Your task to perform on an android device: empty trash in google photos Image 0: 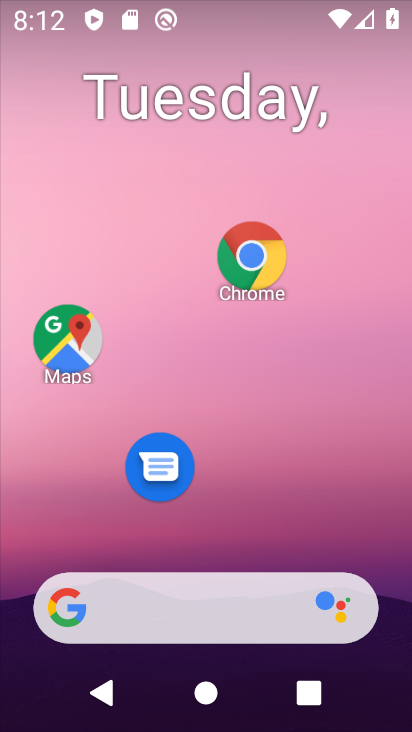
Step 0: drag from (246, 503) to (206, 145)
Your task to perform on an android device: empty trash in google photos Image 1: 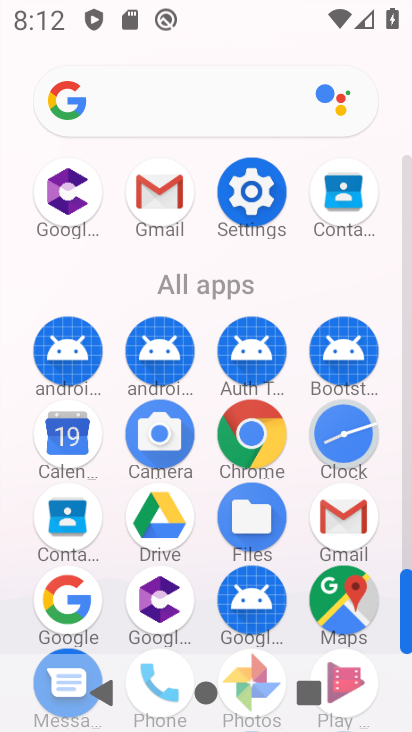
Step 1: drag from (294, 248) to (286, 68)
Your task to perform on an android device: empty trash in google photos Image 2: 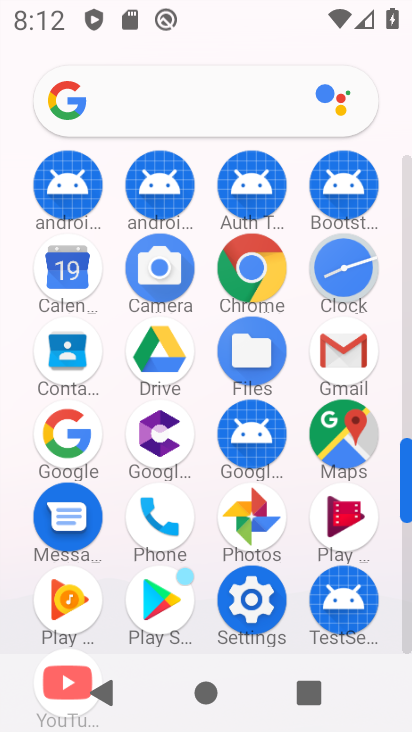
Step 2: click (248, 515)
Your task to perform on an android device: empty trash in google photos Image 3: 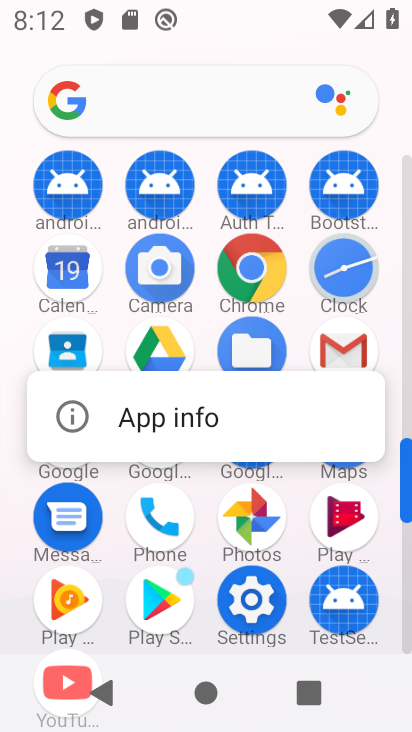
Step 3: click (260, 523)
Your task to perform on an android device: empty trash in google photos Image 4: 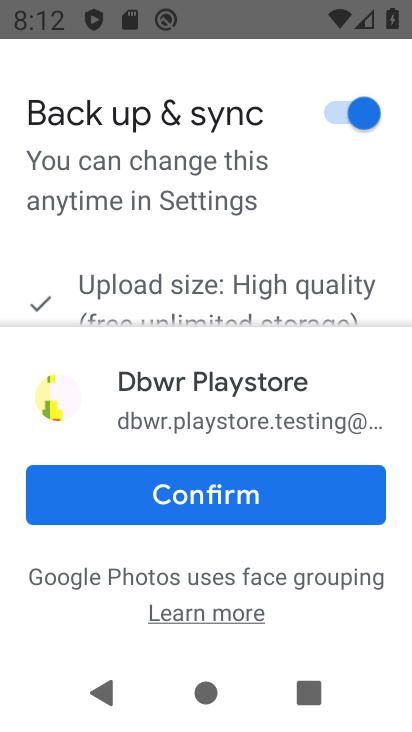
Step 4: click (200, 496)
Your task to perform on an android device: empty trash in google photos Image 5: 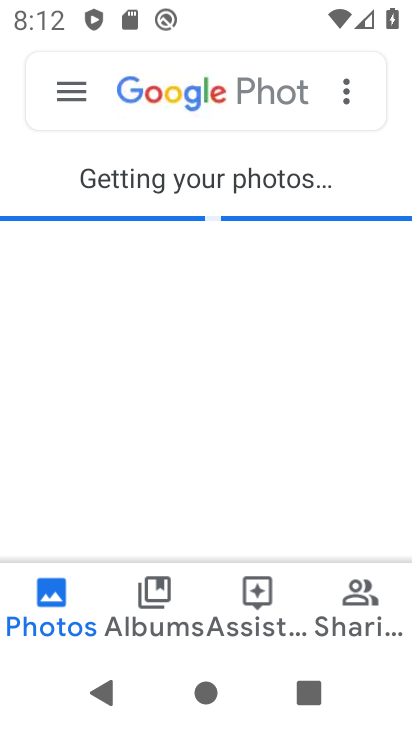
Step 5: click (74, 91)
Your task to perform on an android device: empty trash in google photos Image 6: 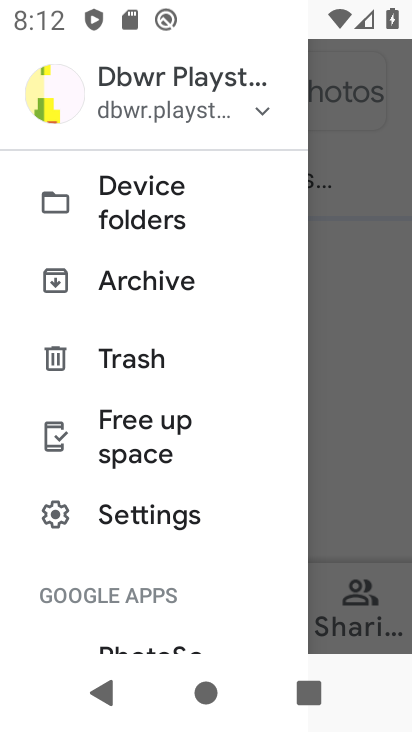
Step 6: click (136, 355)
Your task to perform on an android device: empty trash in google photos Image 7: 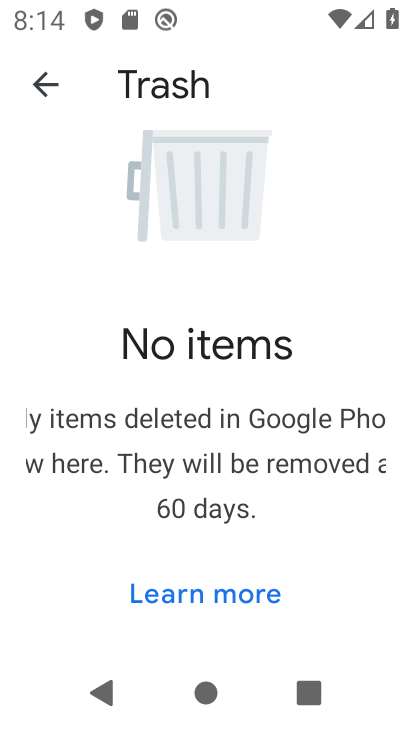
Step 7: task complete